Your task to perform on an android device: turn on bluetooth scan Image 0: 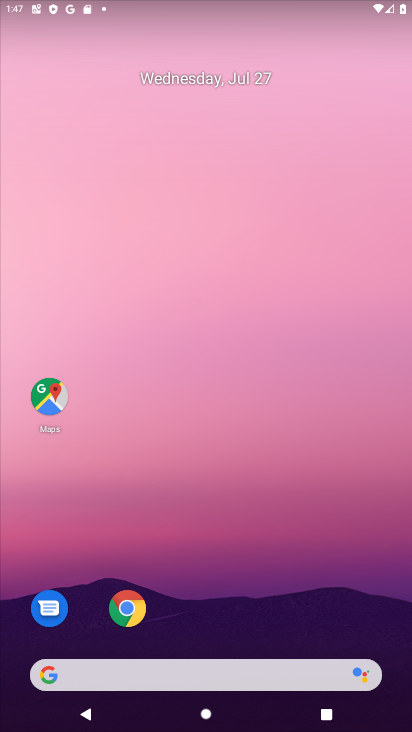
Step 0: drag from (19, 694) to (174, 174)
Your task to perform on an android device: turn on bluetooth scan Image 1: 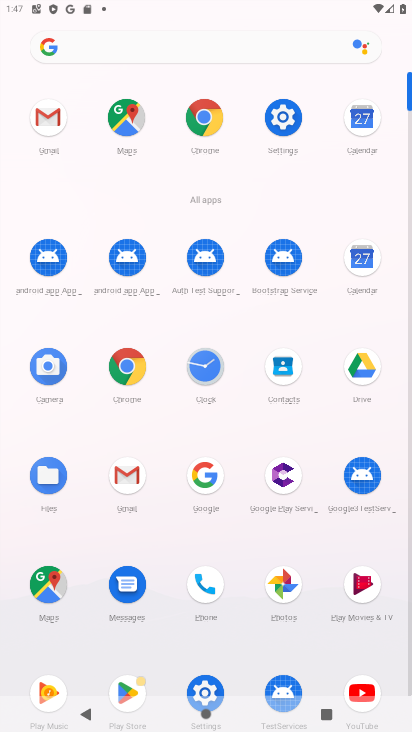
Step 1: click (198, 680)
Your task to perform on an android device: turn on bluetooth scan Image 2: 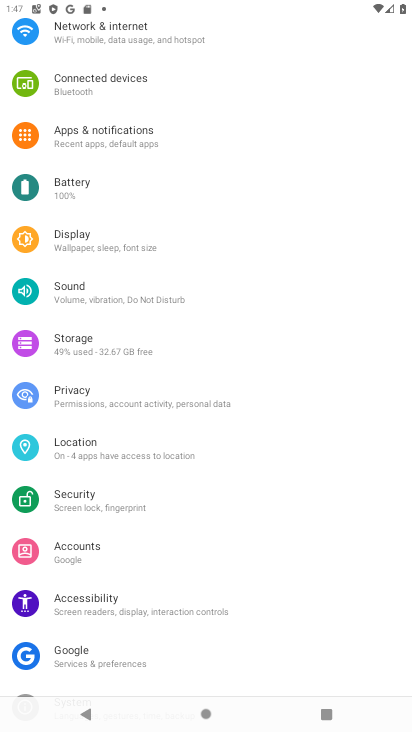
Step 2: drag from (210, 84) to (208, 455)
Your task to perform on an android device: turn on bluetooth scan Image 3: 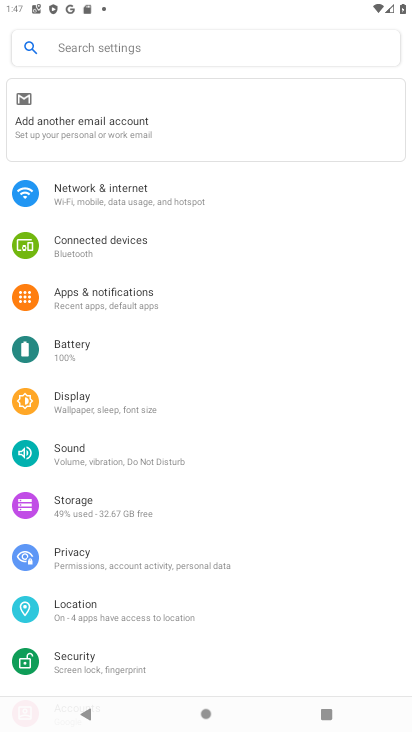
Step 3: click (97, 249)
Your task to perform on an android device: turn on bluetooth scan Image 4: 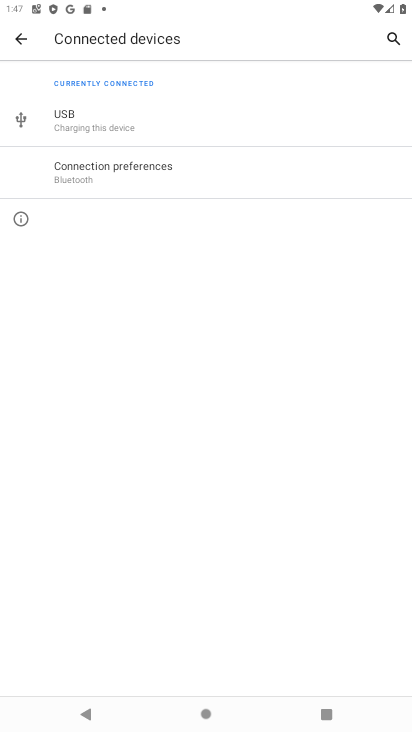
Step 4: task complete